Your task to perform on an android device: Open calendar and show me the fourth week of next month Image 0: 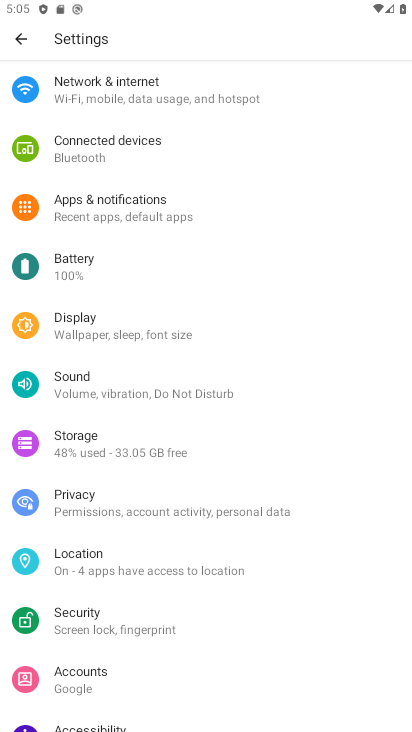
Step 0: press home button
Your task to perform on an android device: Open calendar and show me the fourth week of next month Image 1: 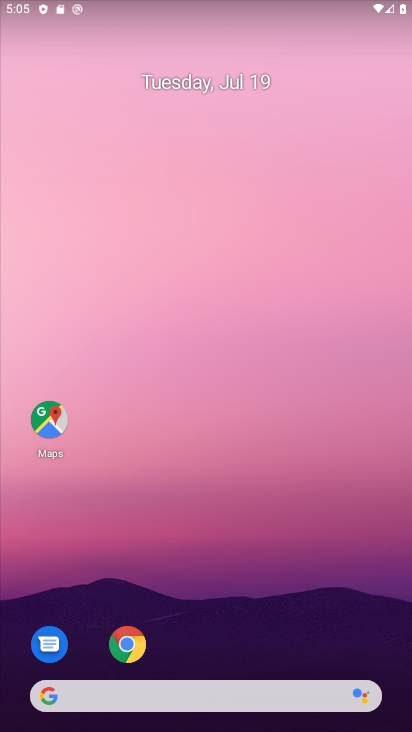
Step 1: drag from (280, 442) to (268, 263)
Your task to perform on an android device: Open calendar and show me the fourth week of next month Image 2: 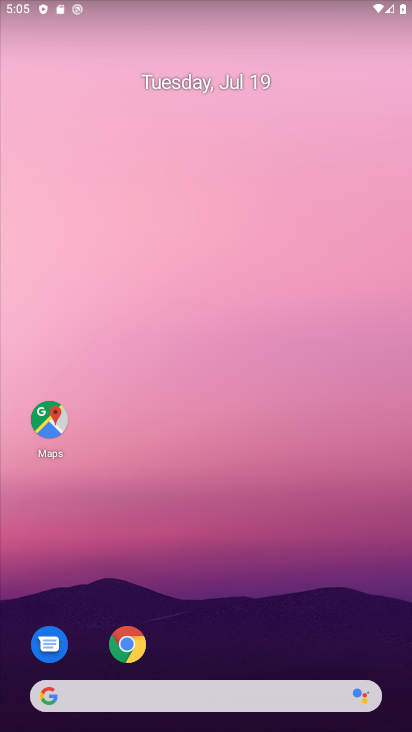
Step 2: drag from (300, 559) to (257, 131)
Your task to perform on an android device: Open calendar and show me the fourth week of next month Image 3: 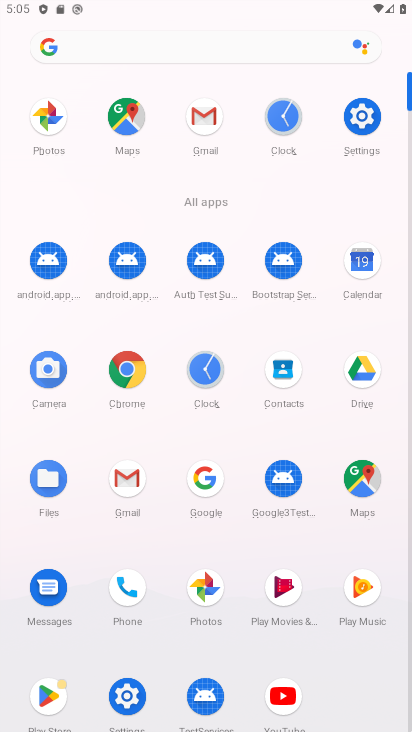
Step 3: click (368, 257)
Your task to perform on an android device: Open calendar and show me the fourth week of next month Image 4: 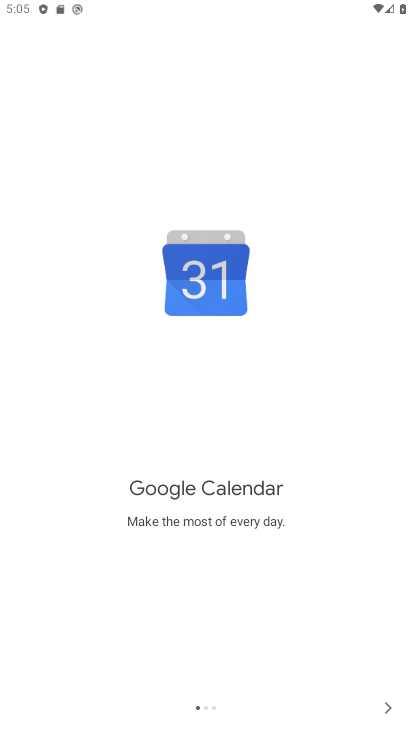
Step 4: click (388, 706)
Your task to perform on an android device: Open calendar and show me the fourth week of next month Image 5: 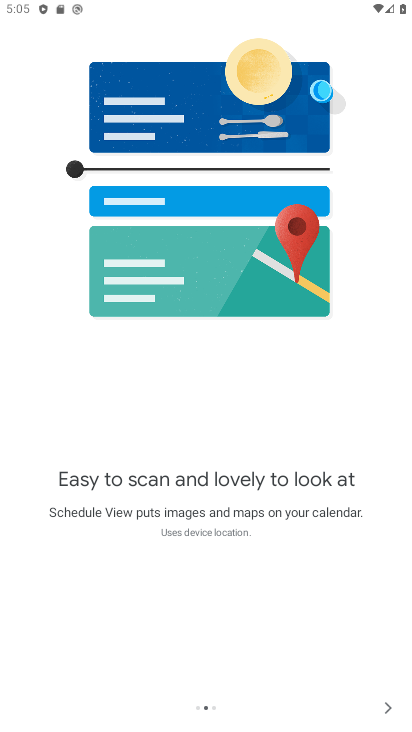
Step 5: click (388, 706)
Your task to perform on an android device: Open calendar and show me the fourth week of next month Image 6: 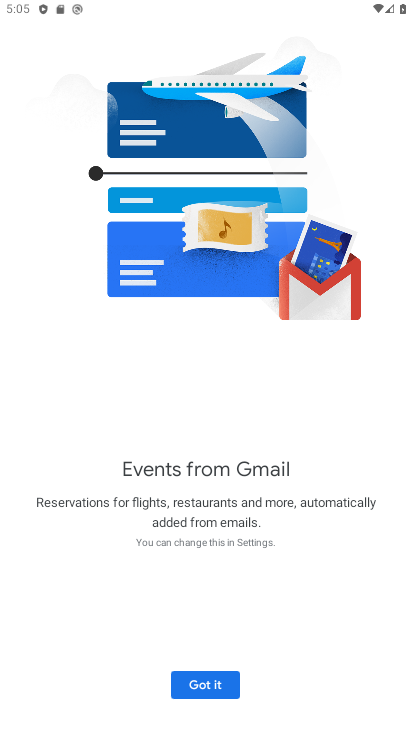
Step 6: click (207, 692)
Your task to perform on an android device: Open calendar and show me the fourth week of next month Image 7: 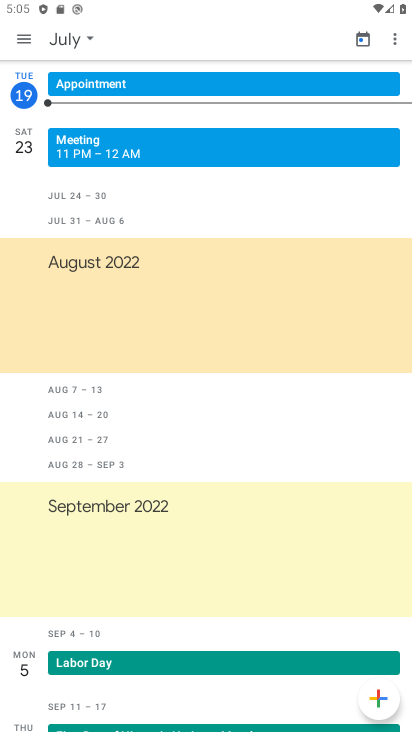
Step 7: task complete